Your task to perform on an android device: open chrome privacy settings Image 0: 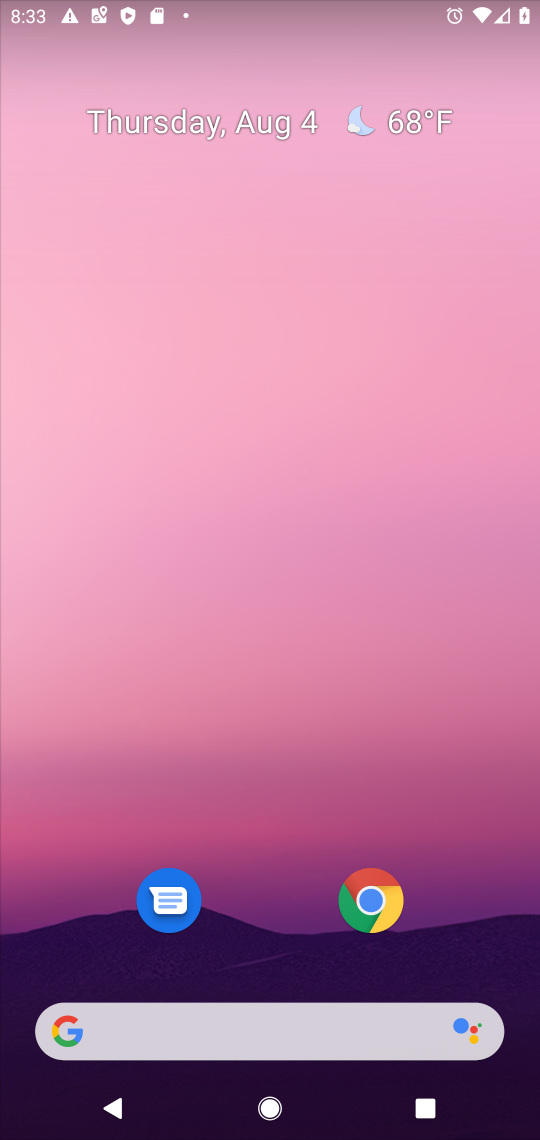
Step 0: click (361, 866)
Your task to perform on an android device: open chrome privacy settings Image 1: 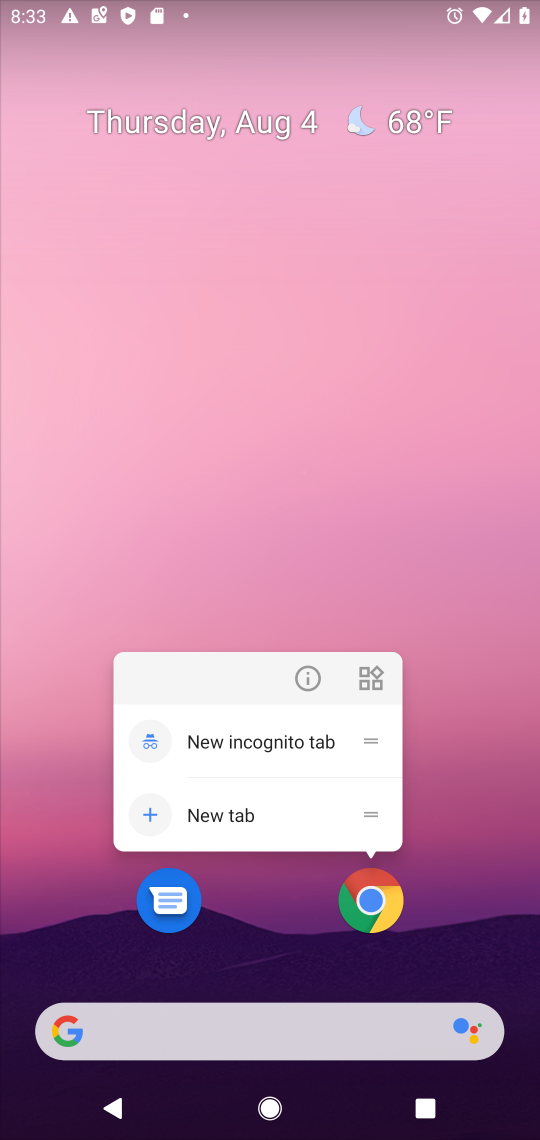
Step 1: click (378, 900)
Your task to perform on an android device: open chrome privacy settings Image 2: 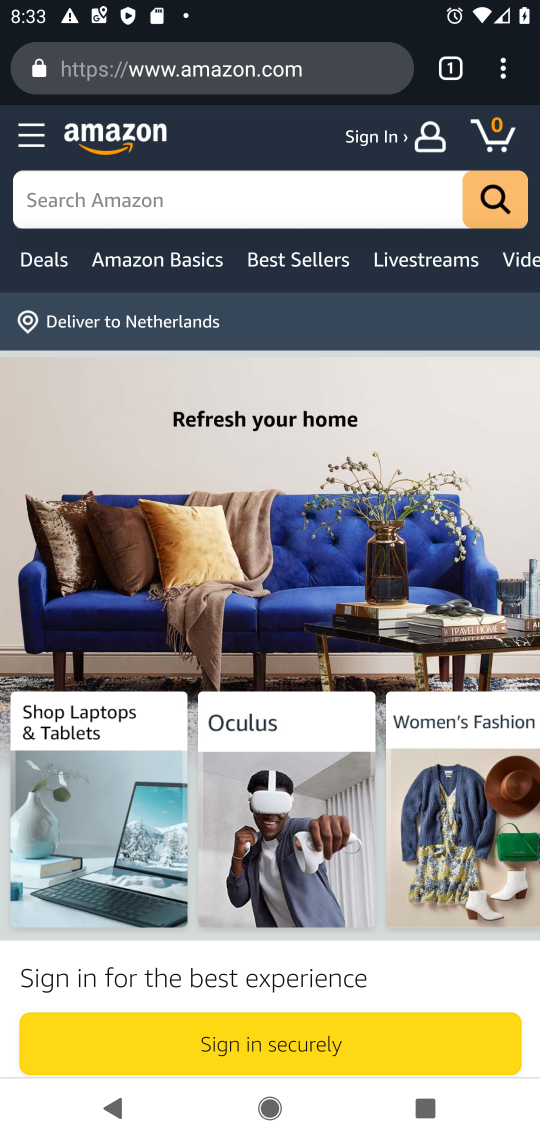
Step 2: click (505, 69)
Your task to perform on an android device: open chrome privacy settings Image 3: 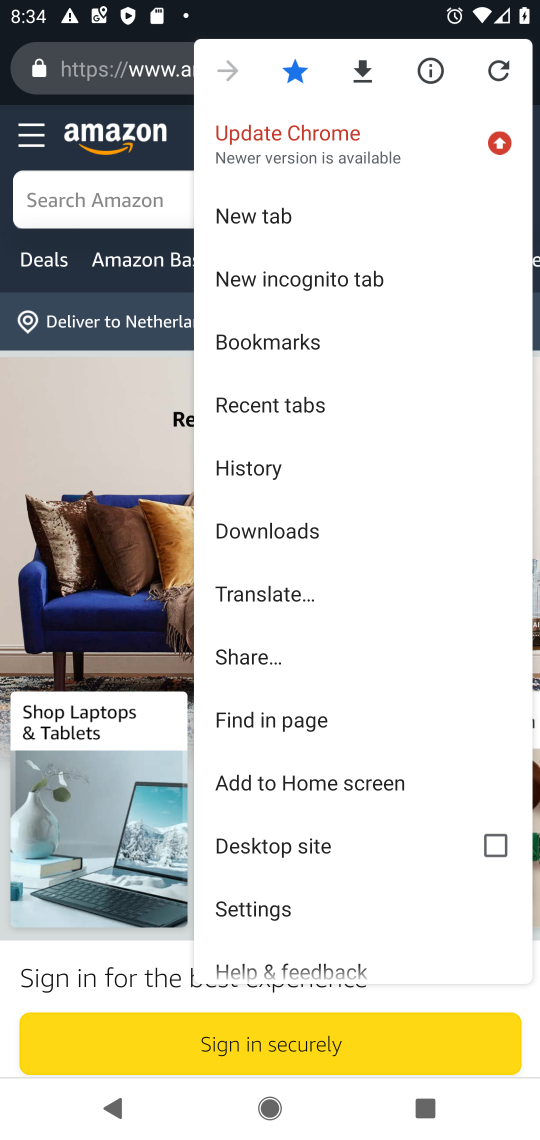
Step 3: click (257, 907)
Your task to perform on an android device: open chrome privacy settings Image 4: 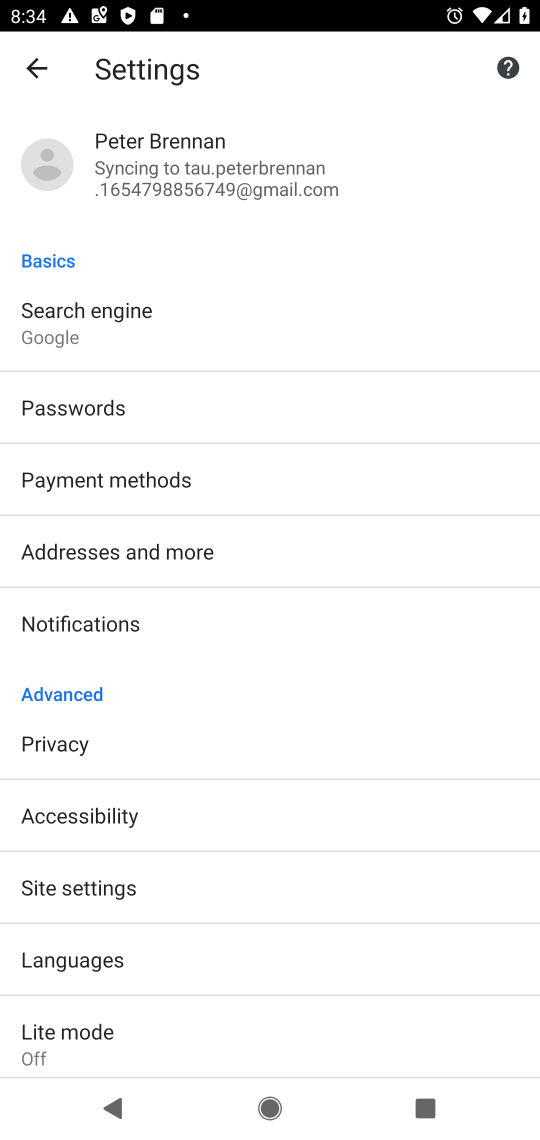
Step 4: click (70, 743)
Your task to perform on an android device: open chrome privacy settings Image 5: 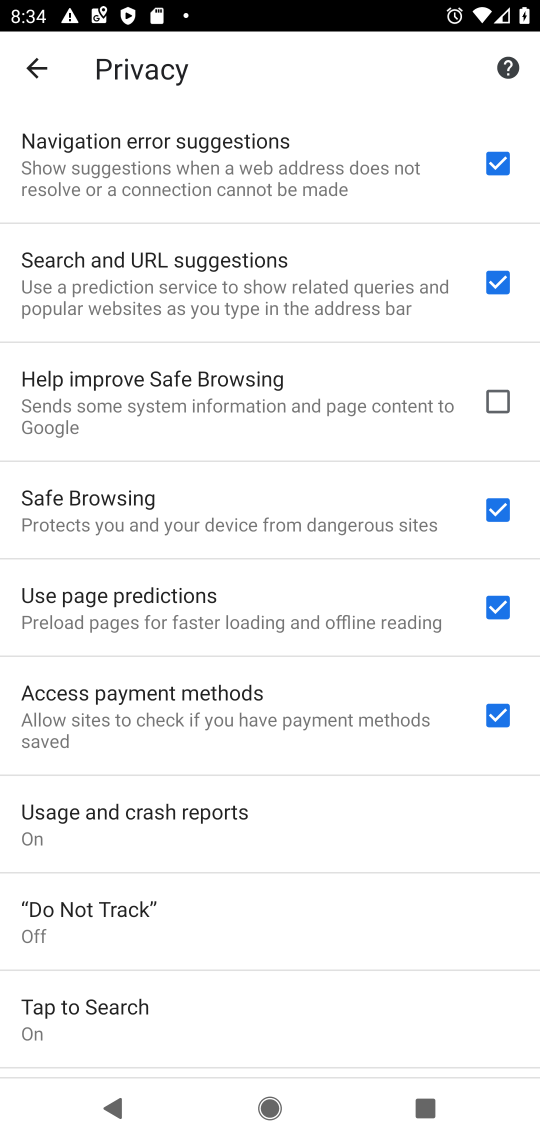
Step 5: task complete